Your task to perform on an android device: delete the emails in spam in the gmail app Image 0: 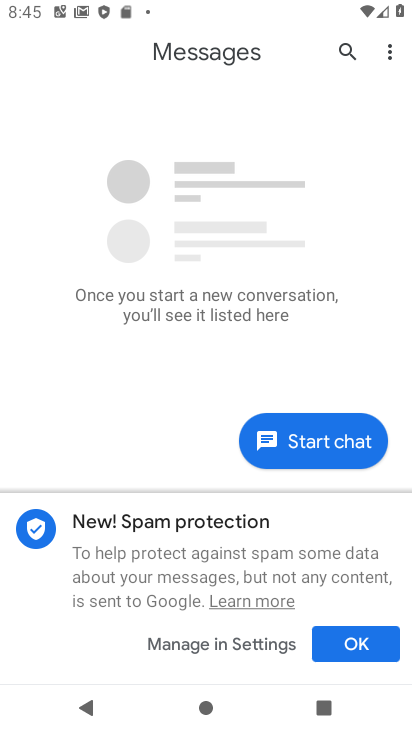
Step 0: press home button
Your task to perform on an android device: delete the emails in spam in the gmail app Image 1: 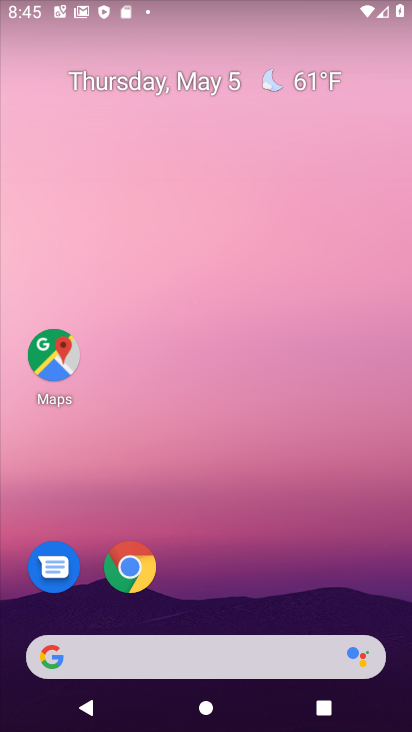
Step 1: drag from (254, 550) to (266, 47)
Your task to perform on an android device: delete the emails in spam in the gmail app Image 2: 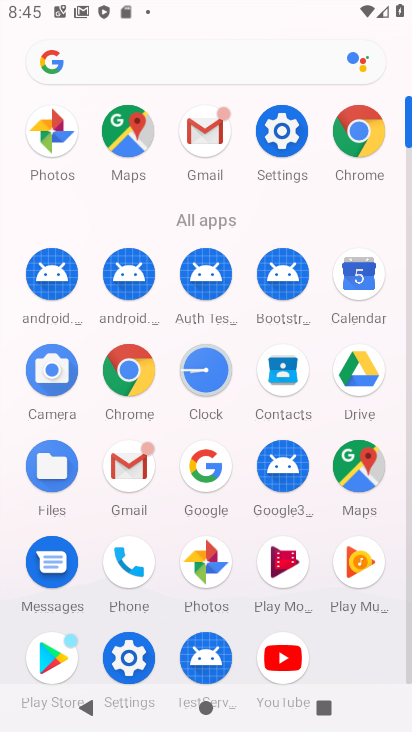
Step 2: click (204, 138)
Your task to perform on an android device: delete the emails in spam in the gmail app Image 3: 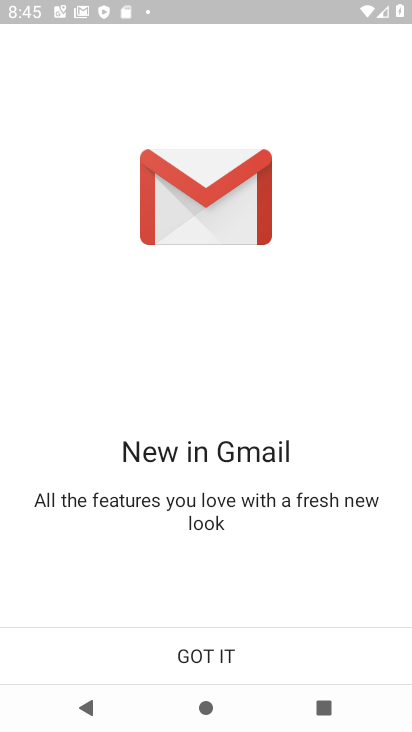
Step 3: click (234, 651)
Your task to perform on an android device: delete the emails in spam in the gmail app Image 4: 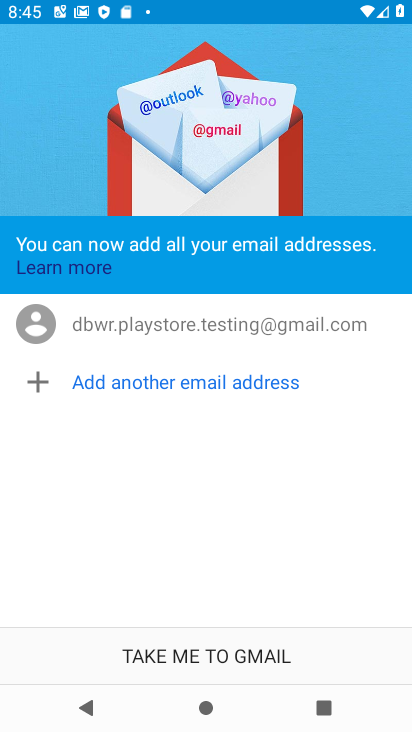
Step 4: click (234, 651)
Your task to perform on an android device: delete the emails in spam in the gmail app Image 5: 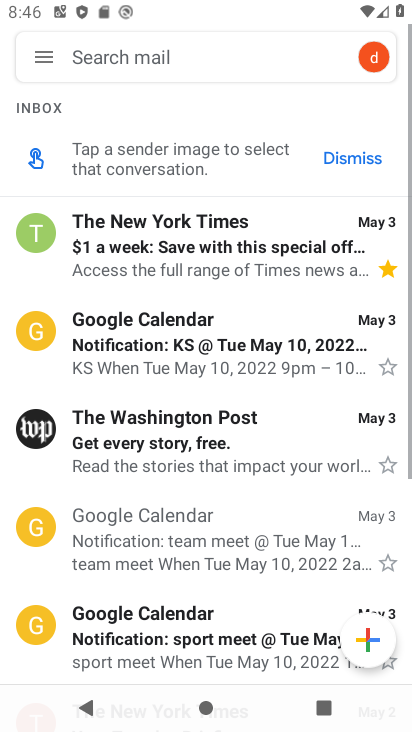
Step 5: click (41, 63)
Your task to perform on an android device: delete the emails in spam in the gmail app Image 6: 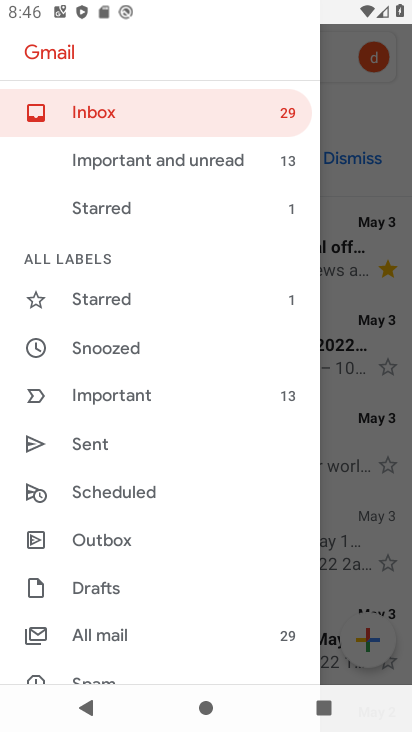
Step 6: drag from (132, 617) to (200, 293)
Your task to perform on an android device: delete the emails in spam in the gmail app Image 7: 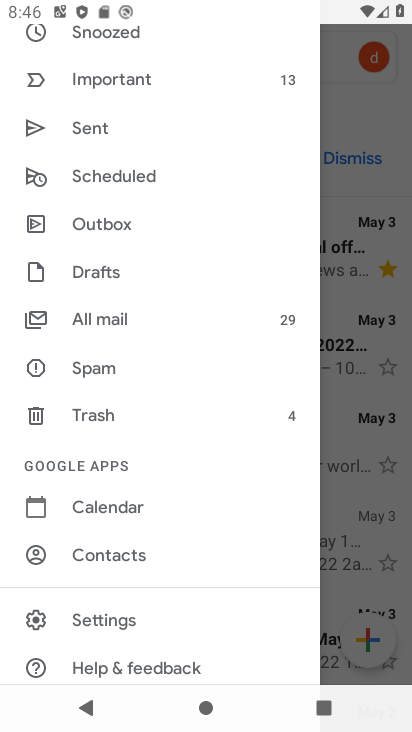
Step 7: click (100, 375)
Your task to perform on an android device: delete the emails in spam in the gmail app Image 8: 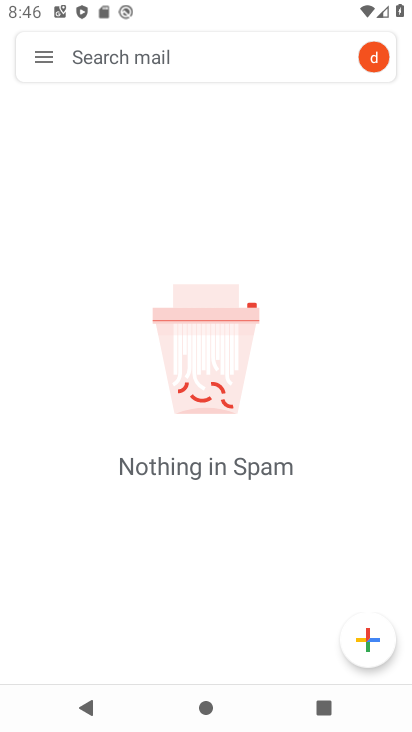
Step 8: task complete